Your task to perform on an android device: Show me popular games on the Play Store Image 0: 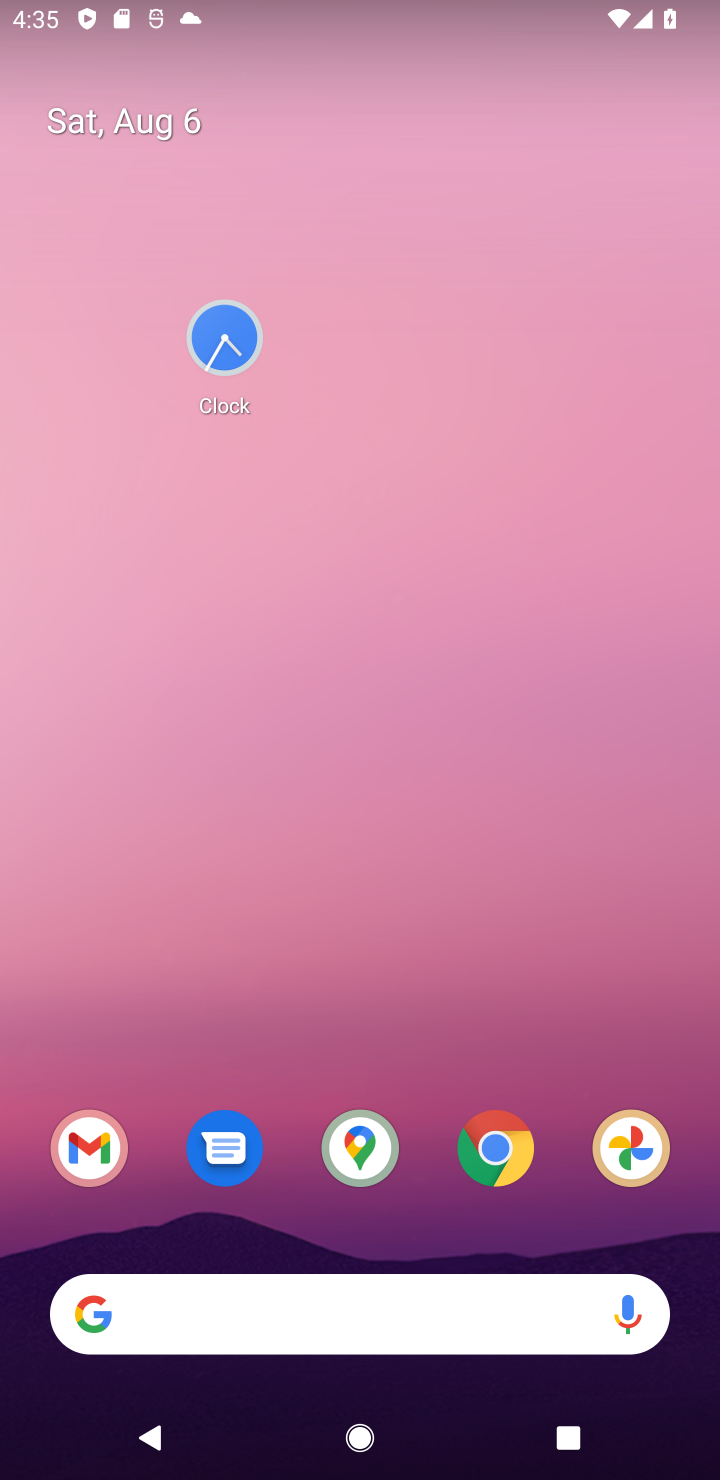
Step 0: click (599, 374)
Your task to perform on an android device: Show me popular games on the Play Store Image 1: 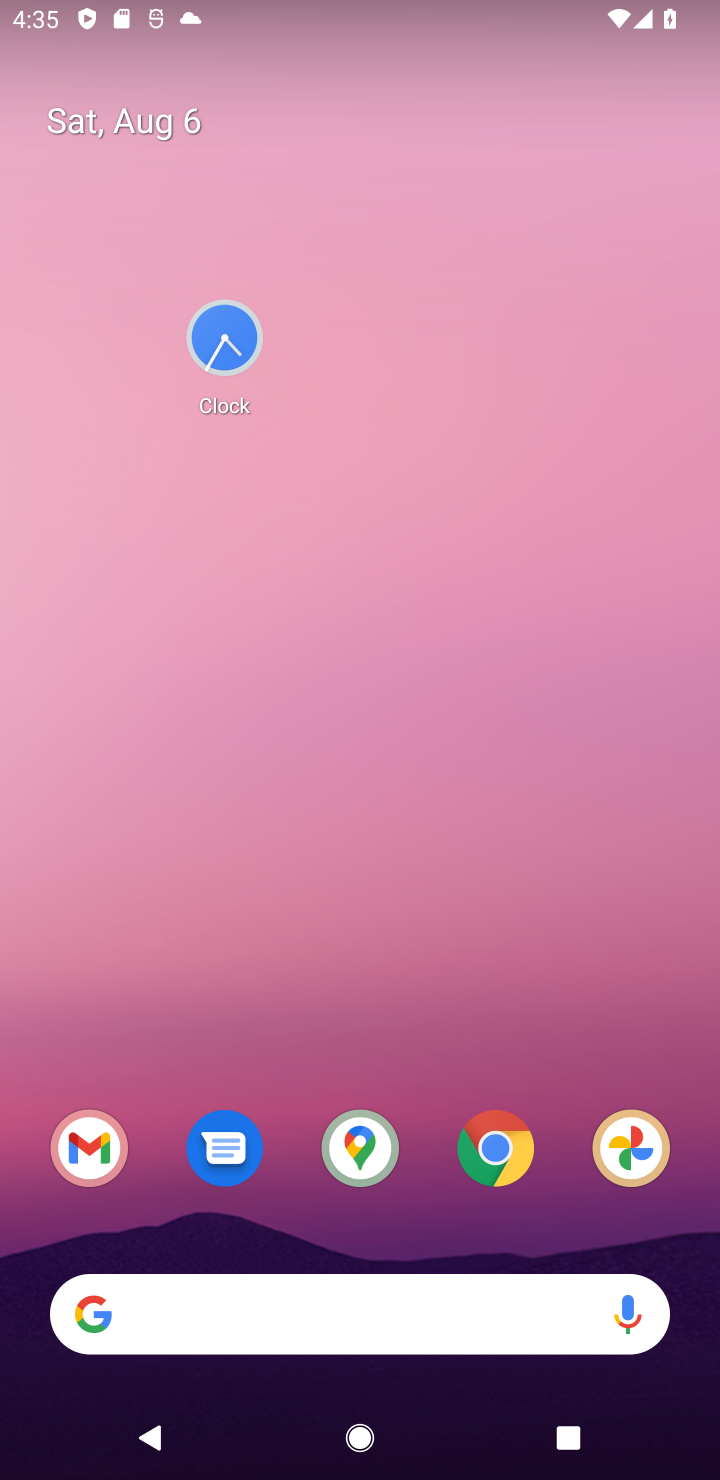
Step 1: drag from (414, 1145) to (472, 478)
Your task to perform on an android device: Show me popular games on the Play Store Image 2: 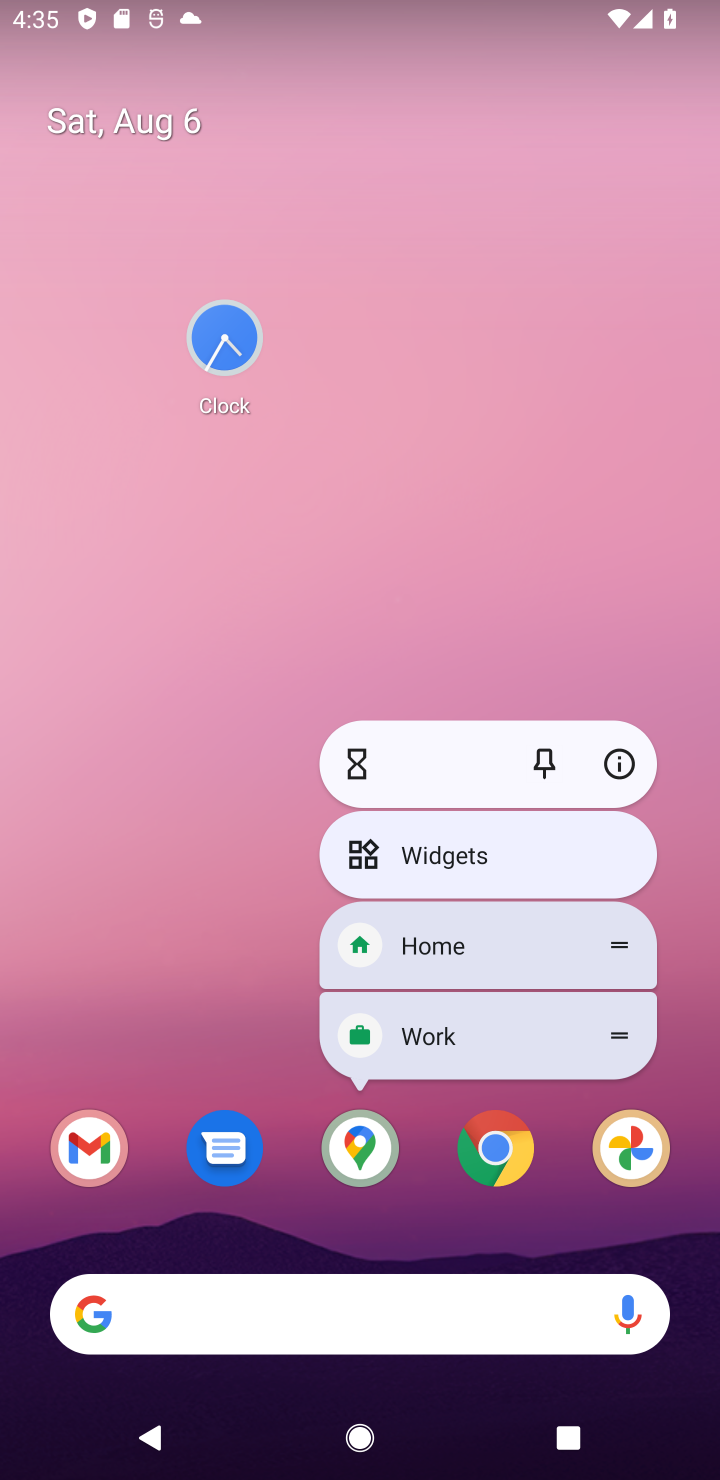
Step 2: click (618, 748)
Your task to perform on an android device: Show me popular games on the Play Store Image 3: 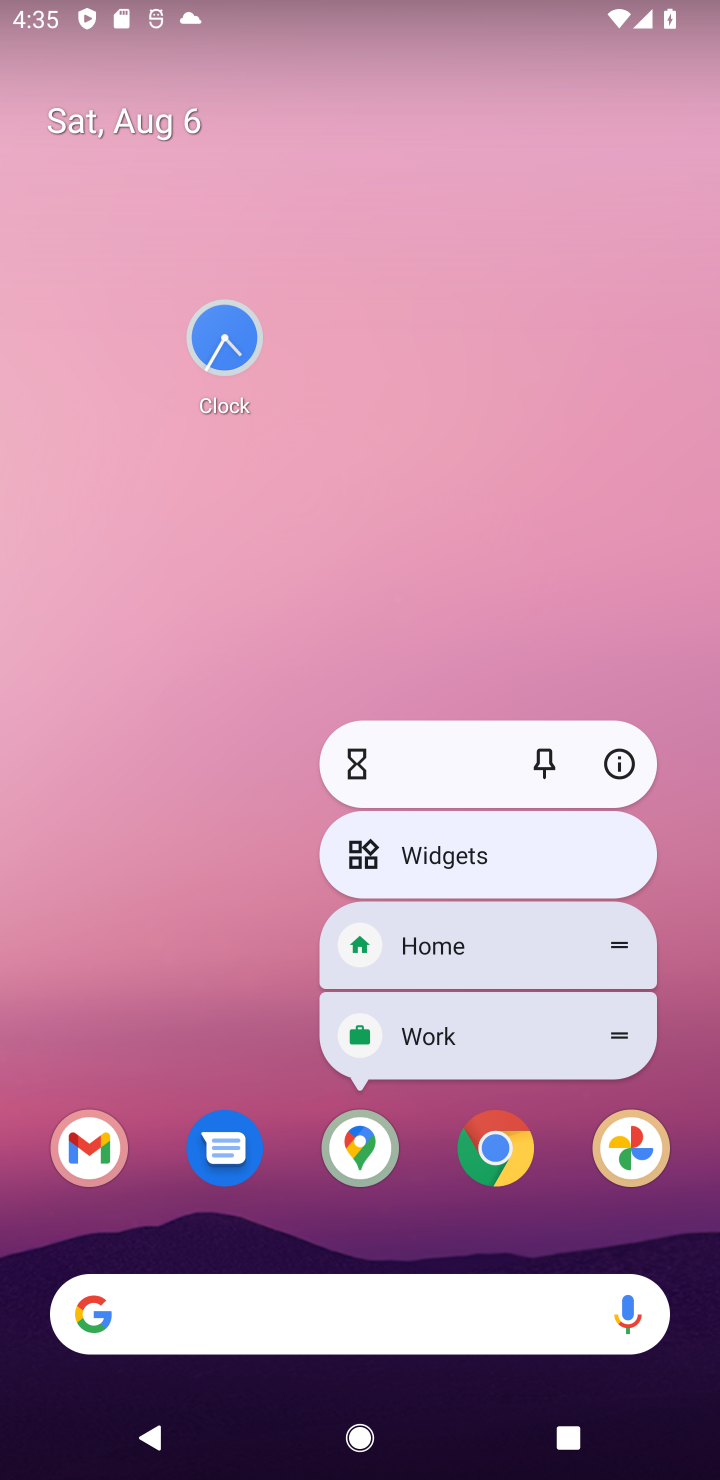
Step 3: click (358, 1160)
Your task to perform on an android device: Show me popular games on the Play Store Image 4: 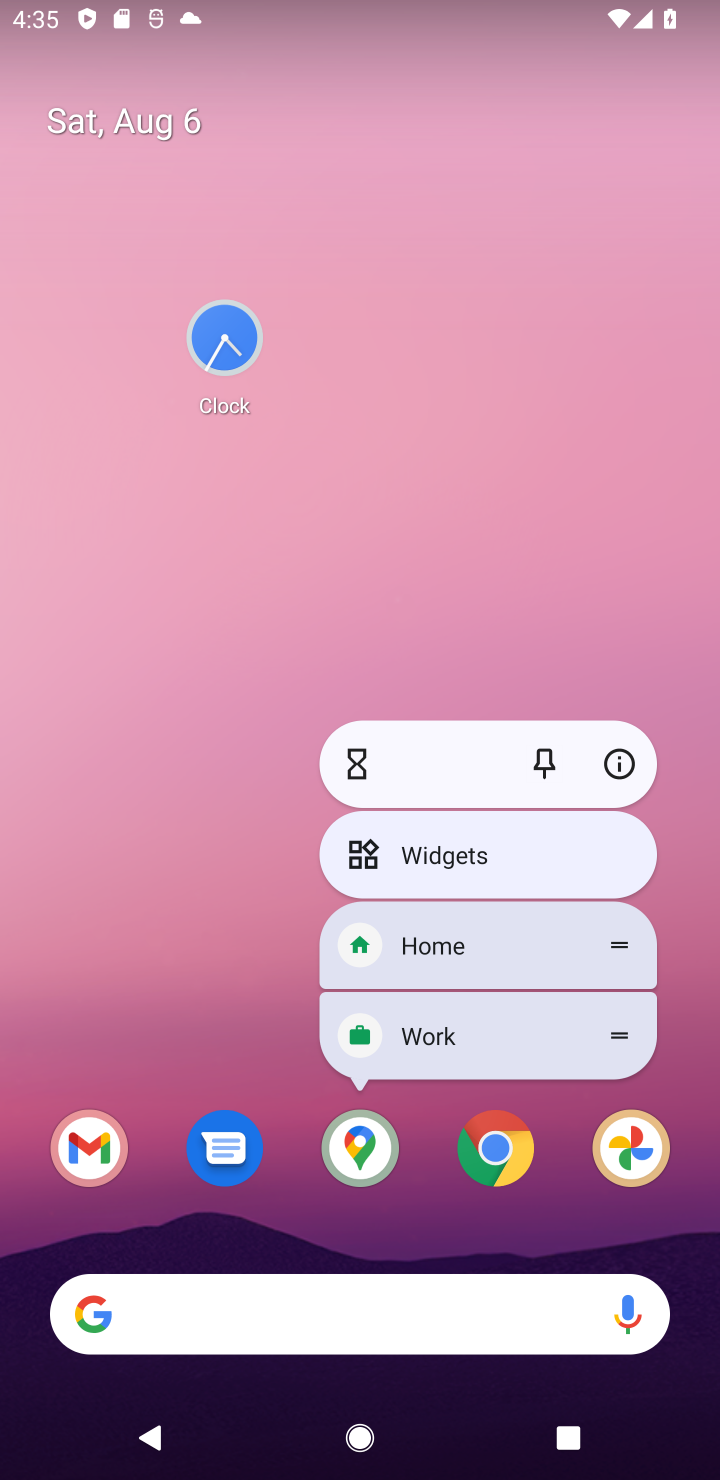
Step 4: click (86, 1003)
Your task to perform on an android device: Show me popular games on the Play Store Image 5: 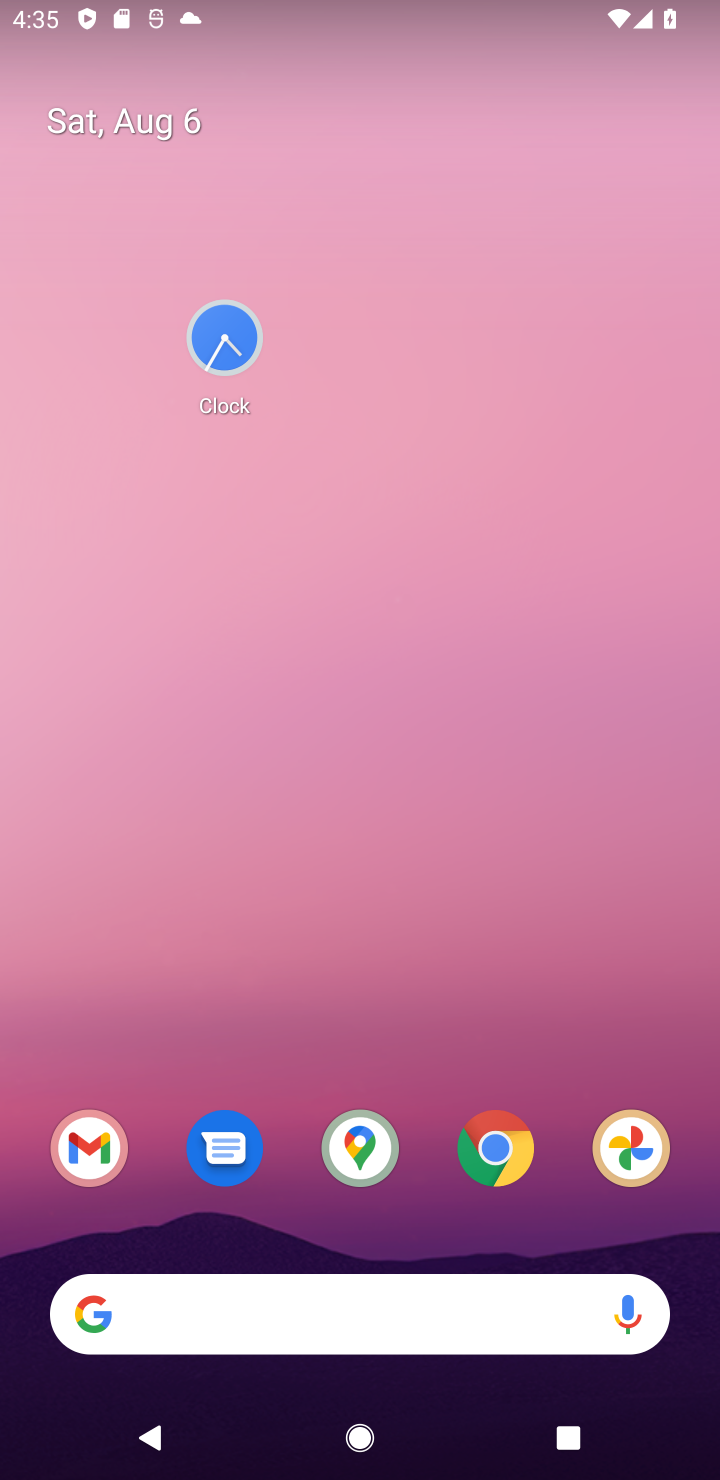
Step 5: drag from (433, 1239) to (597, 394)
Your task to perform on an android device: Show me popular games on the Play Store Image 6: 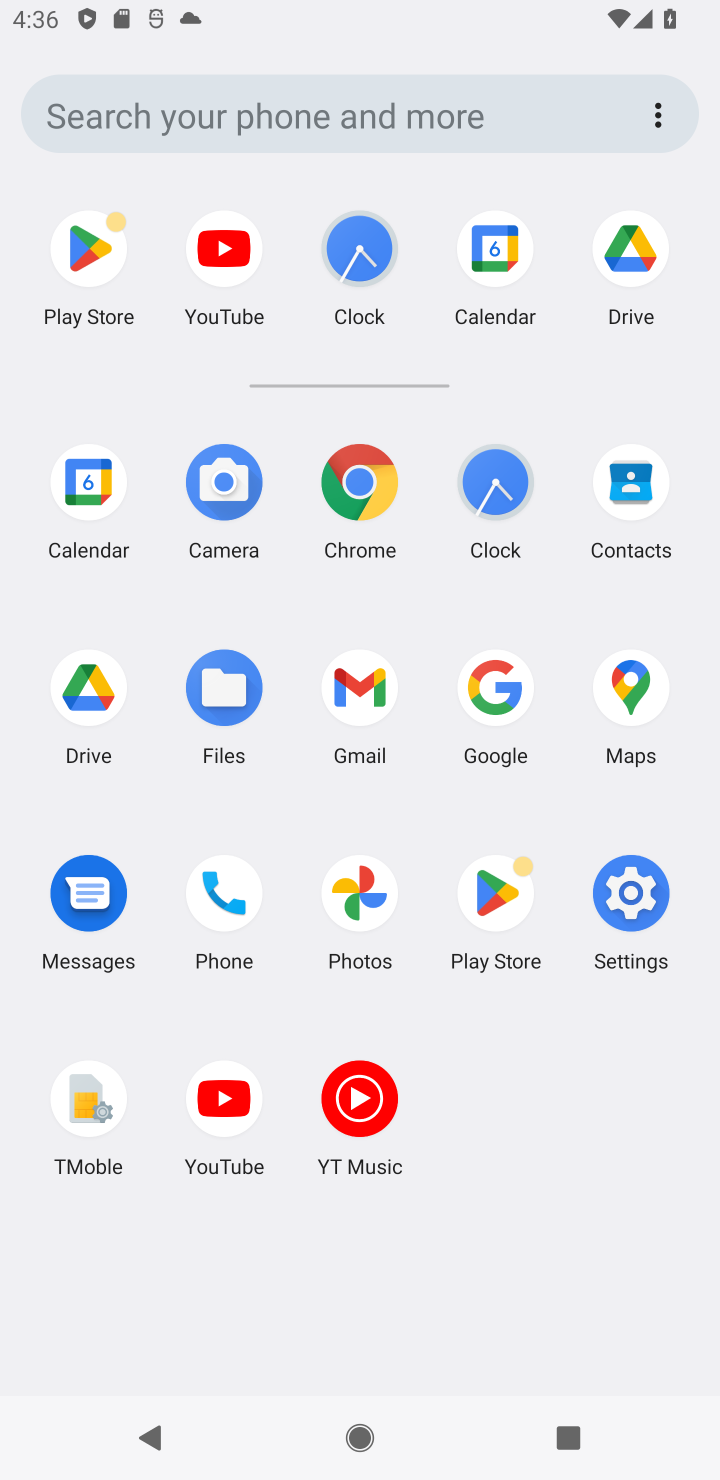
Step 6: click (511, 880)
Your task to perform on an android device: Show me popular games on the Play Store Image 7: 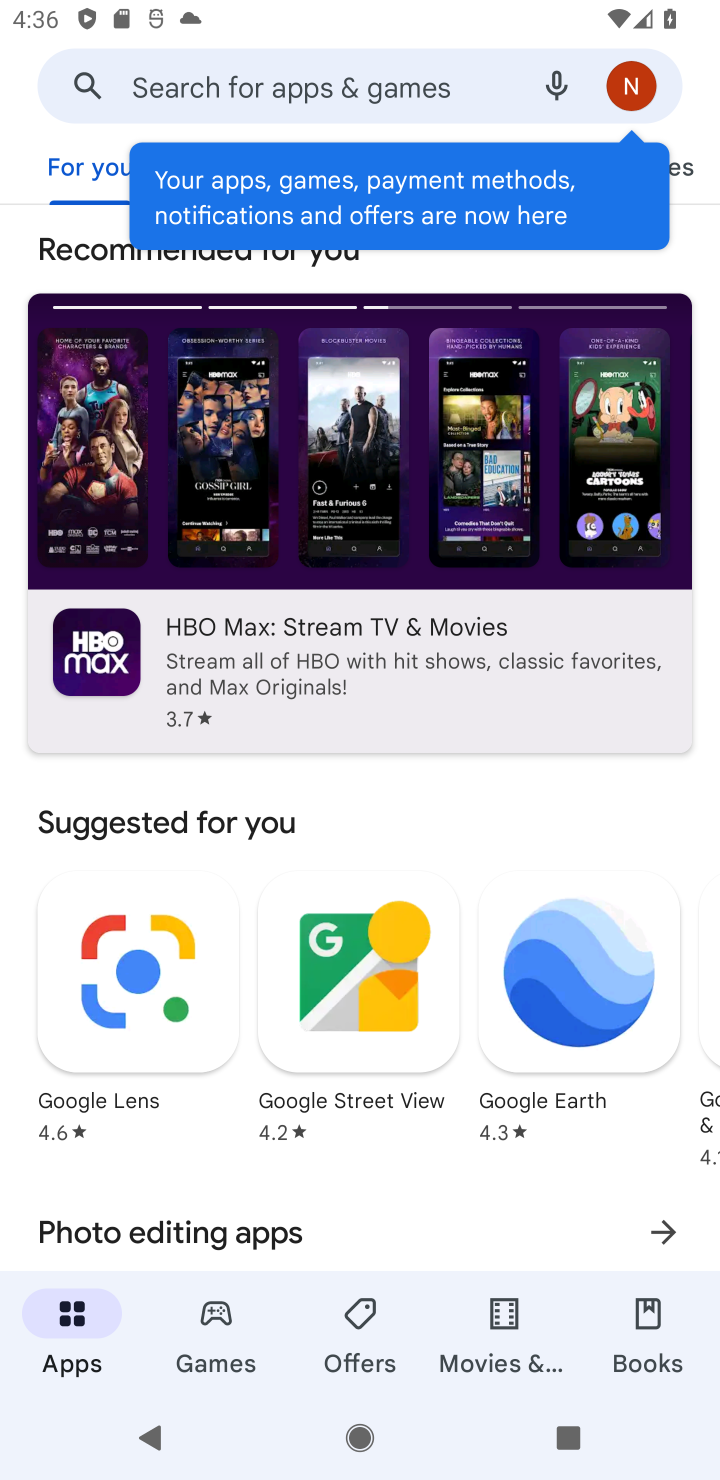
Step 7: drag from (343, 1047) to (473, 371)
Your task to perform on an android device: Show me popular games on the Play Store Image 8: 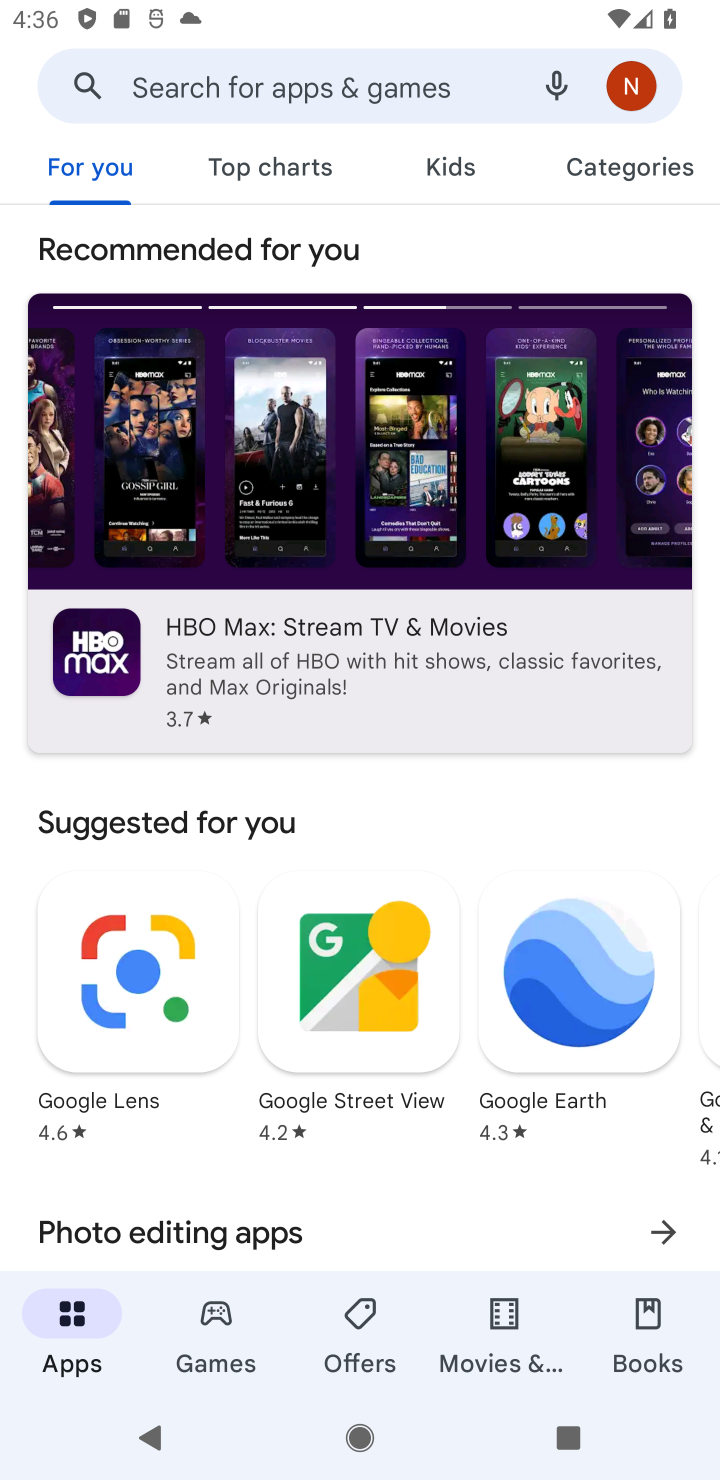
Step 8: click (200, 1339)
Your task to perform on an android device: Show me popular games on the Play Store Image 9: 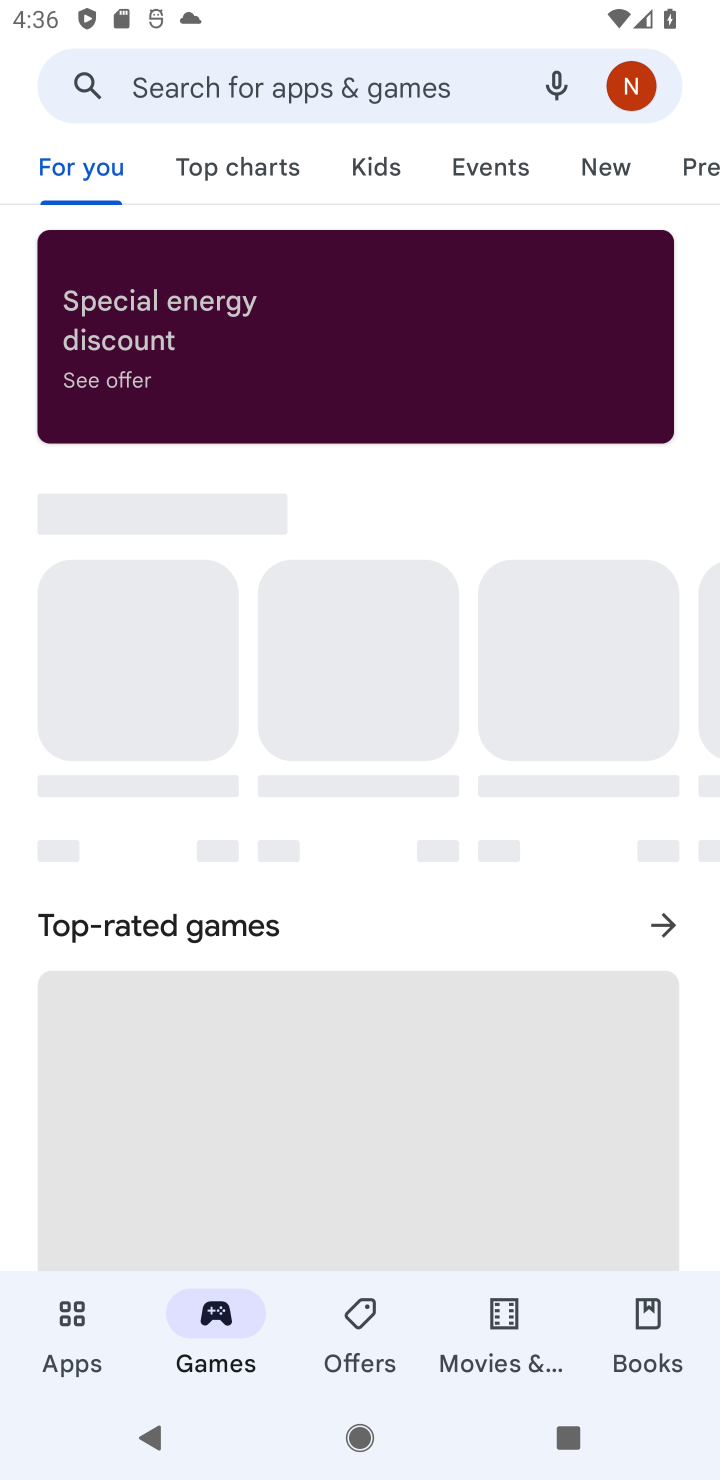
Step 9: drag from (372, 1142) to (488, 256)
Your task to perform on an android device: Show me popular games on the Play Store Image 10: 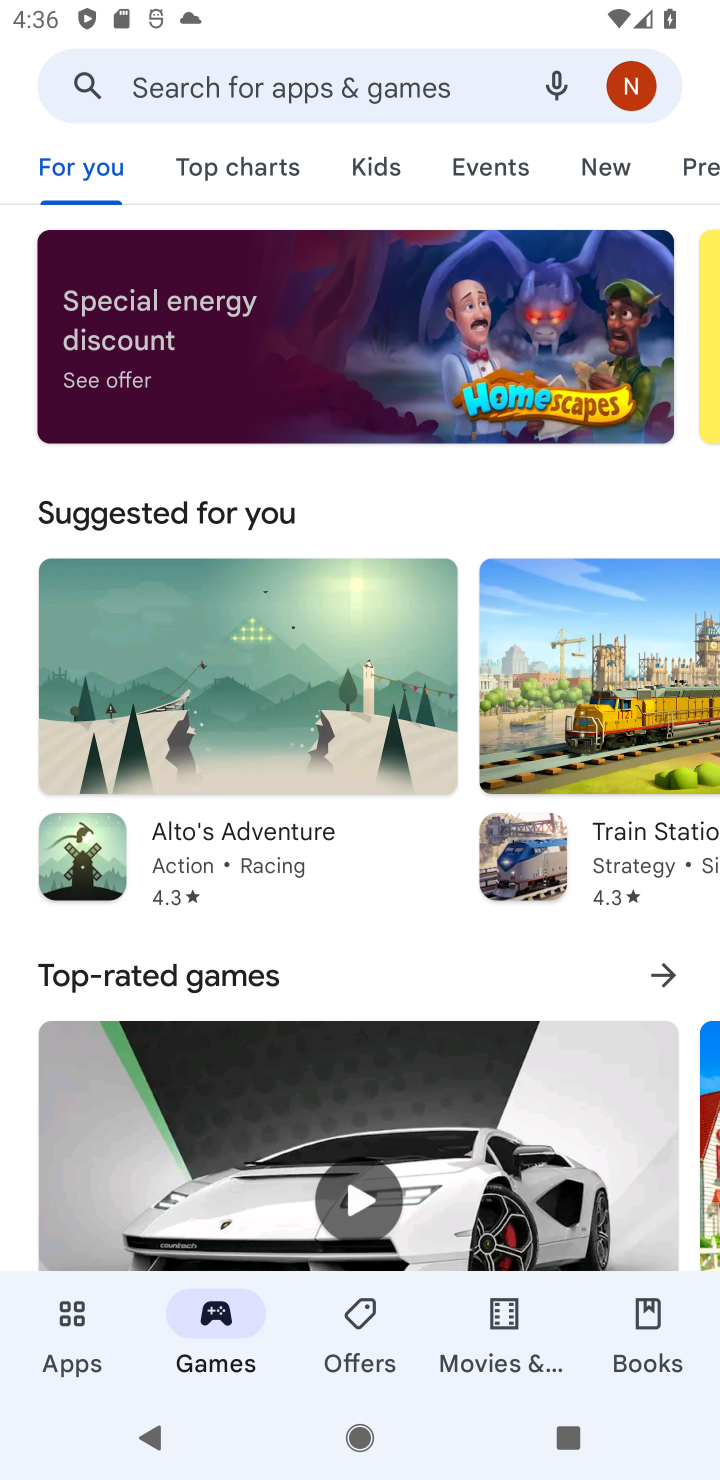
Step 10: drag from (463, 793) to (511, 279)
Your task to perform on an android device: Show me popular games on the Play Store Image 11: 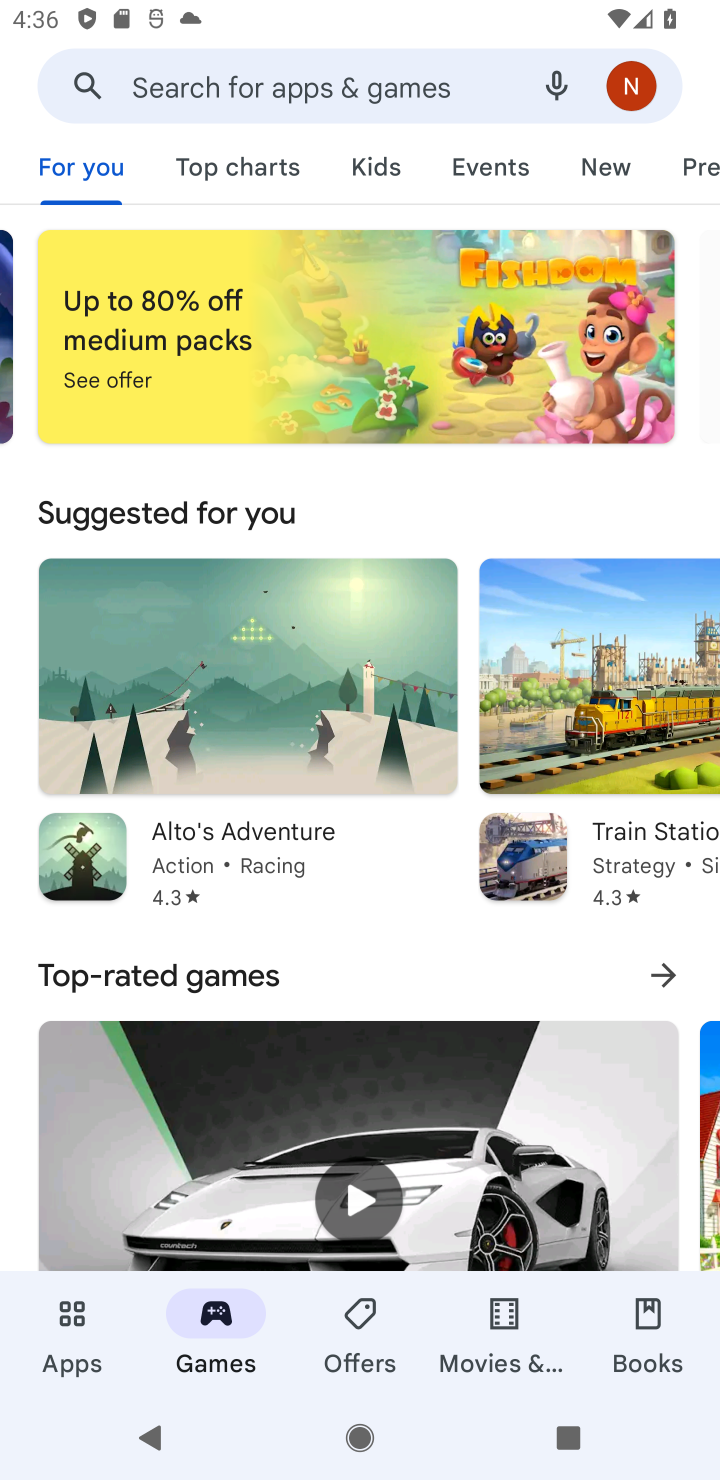
Step 11: drag from (511, 831) to (572, 299)
Your task to perform on an android device: Show me popular games on the Play Store Image 12: 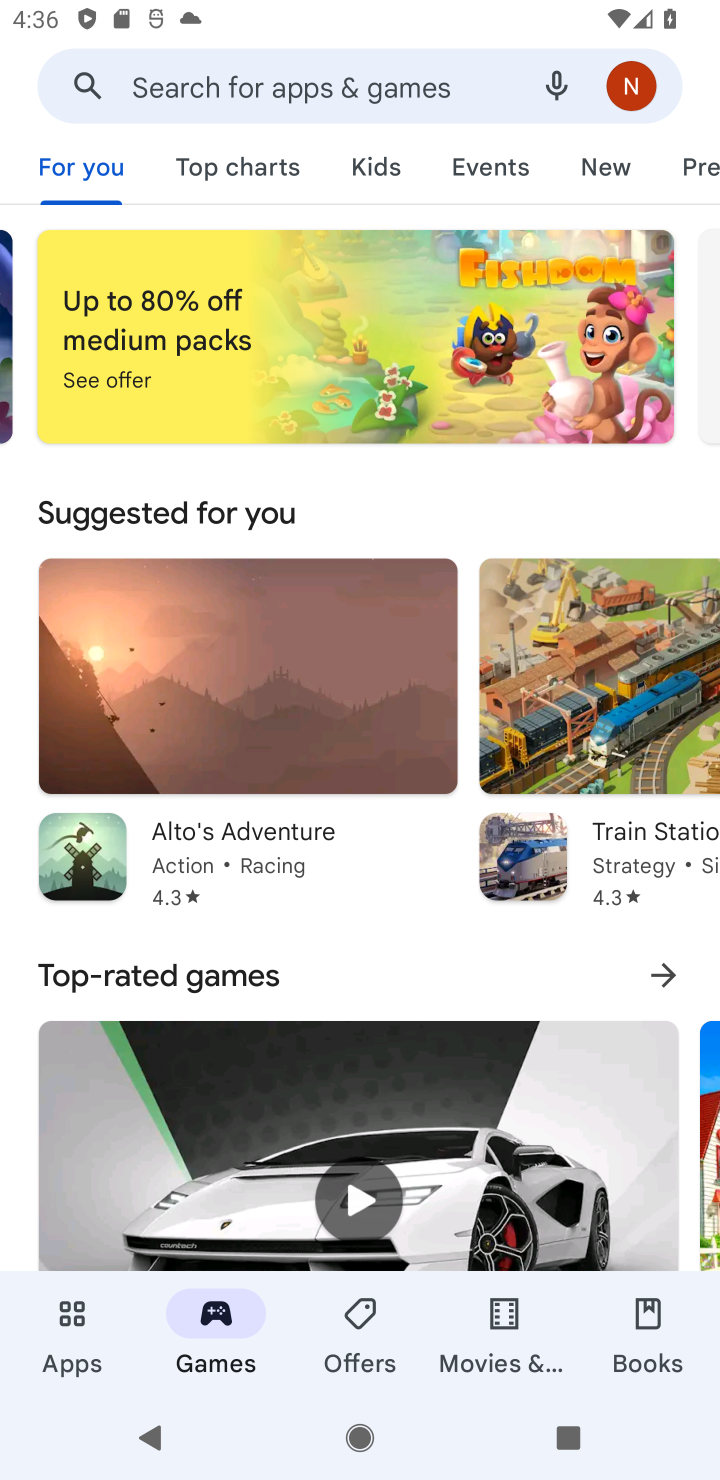
Step 12: drag from (458, 742) to (470, 131)
Your task to perform on an android device: Show me popular games on the Play Store Image 13: 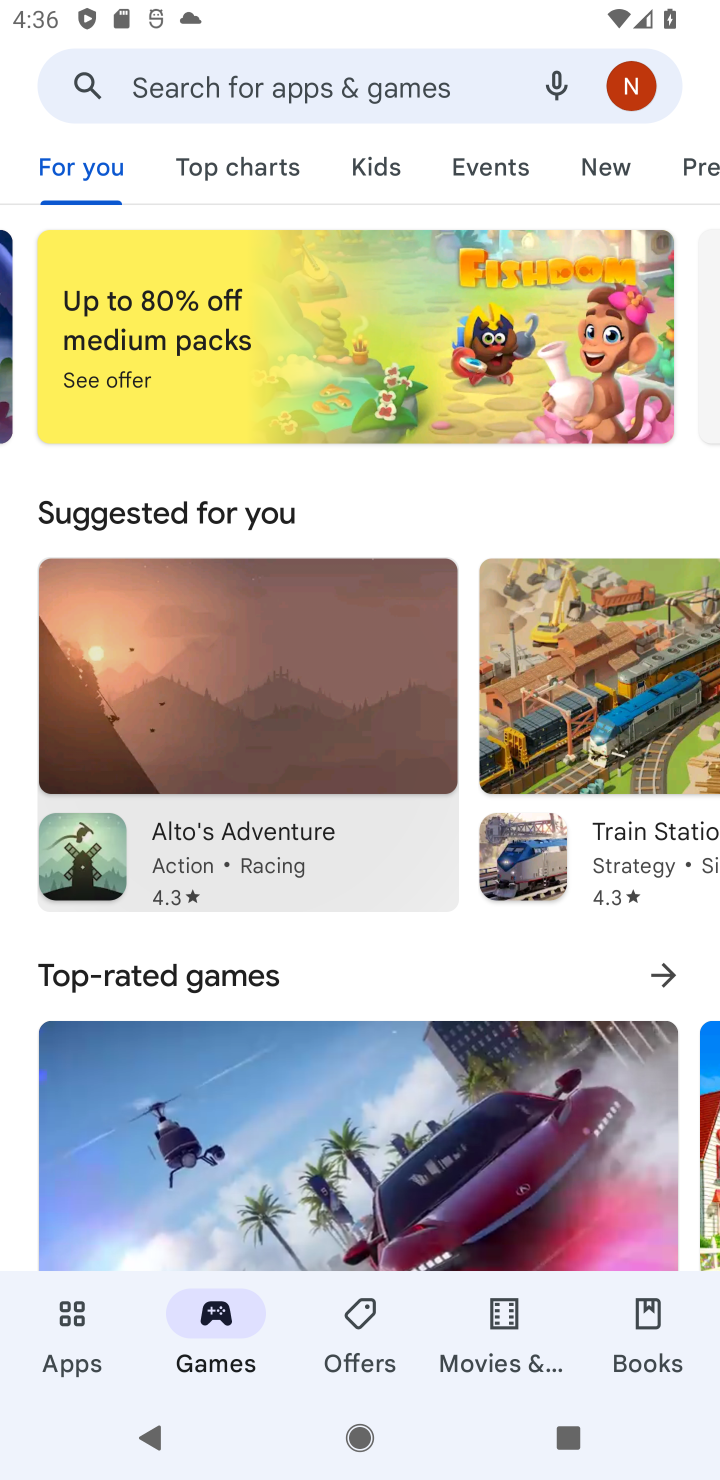
Step 13: drag from (354, 904) to (434, 156)
Your task to perform on an android device: Show me popular games on the Play Store Image 14: 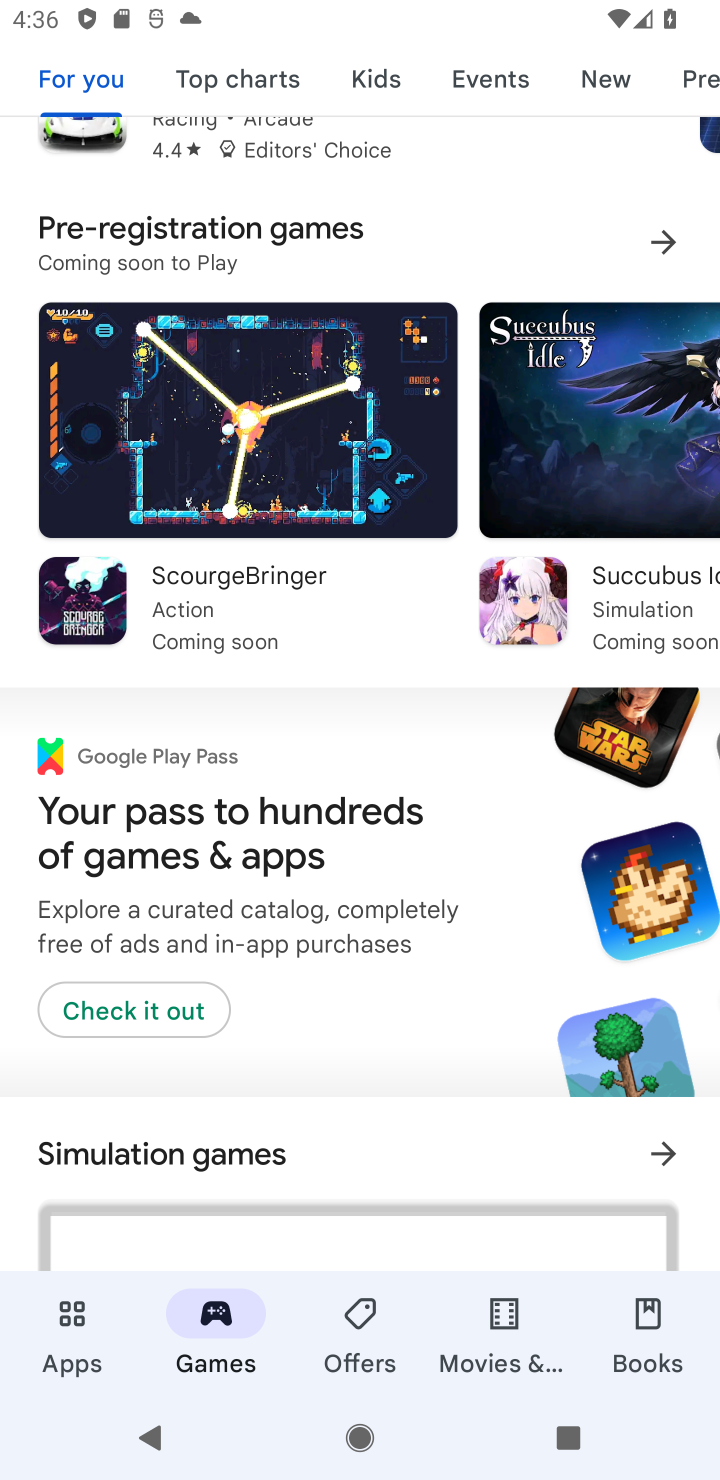
Step 14: drag from (374, 913) to (437, 218)
Your task to perform on an android device: Show me popular games on the Play Store Image 15: 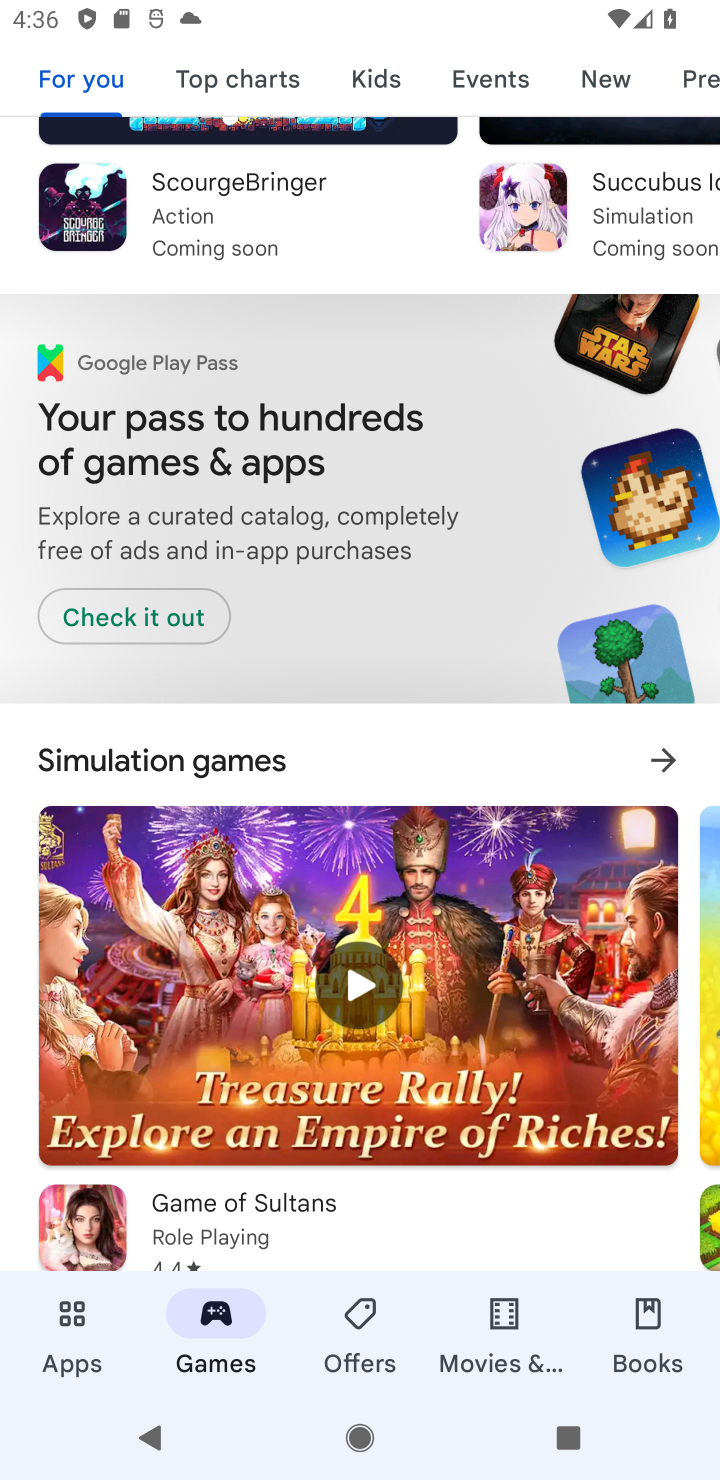
Step 15: drag from (349, 1118) to (434, 413)
Your task to perform on an android device: Show me popular games on the Play Store Image 16: 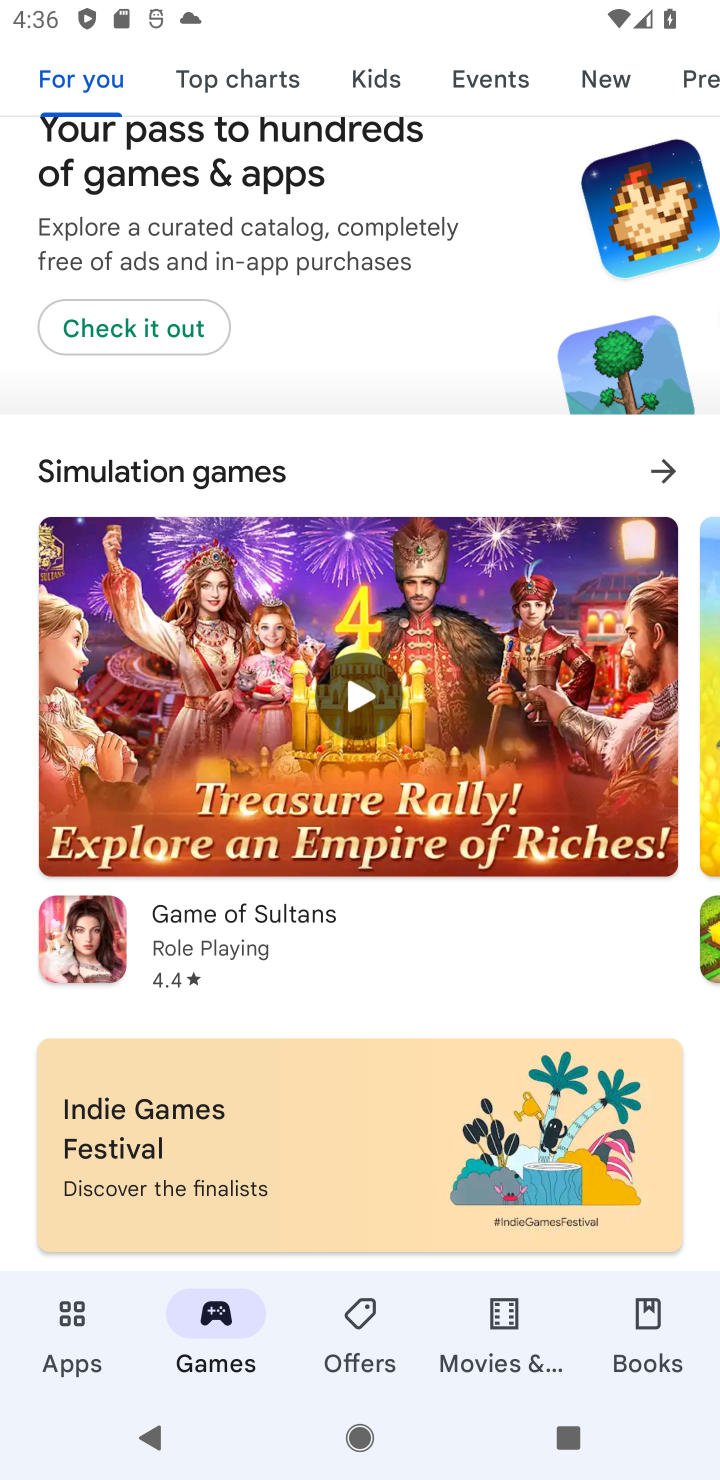
Step 16: drag from (373, 992) to (424, 520)
Your task to perform on an android device: Show me popular games on the Play Store Image 17: 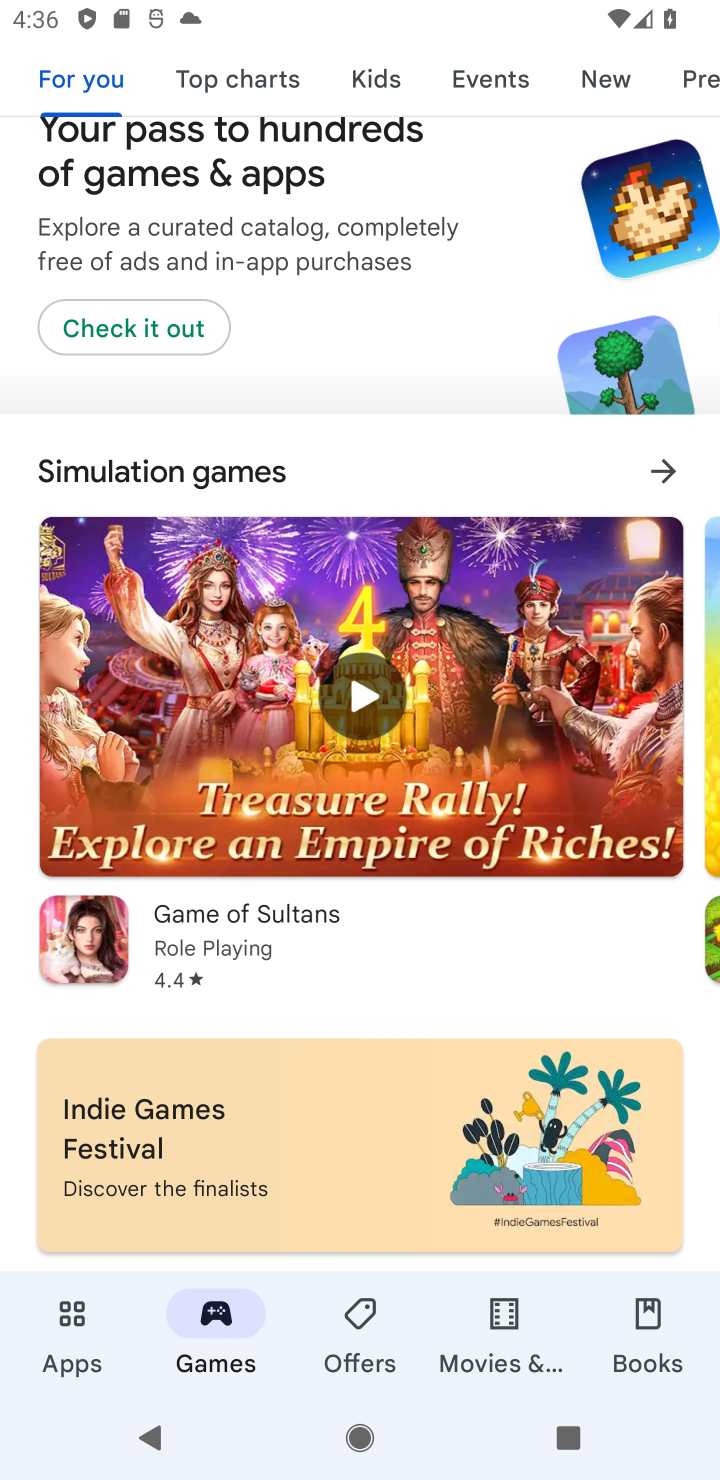
Step 17: click (477, 149)
Your task to perform on an android device: Show me popular games on the Play Store Image 18: 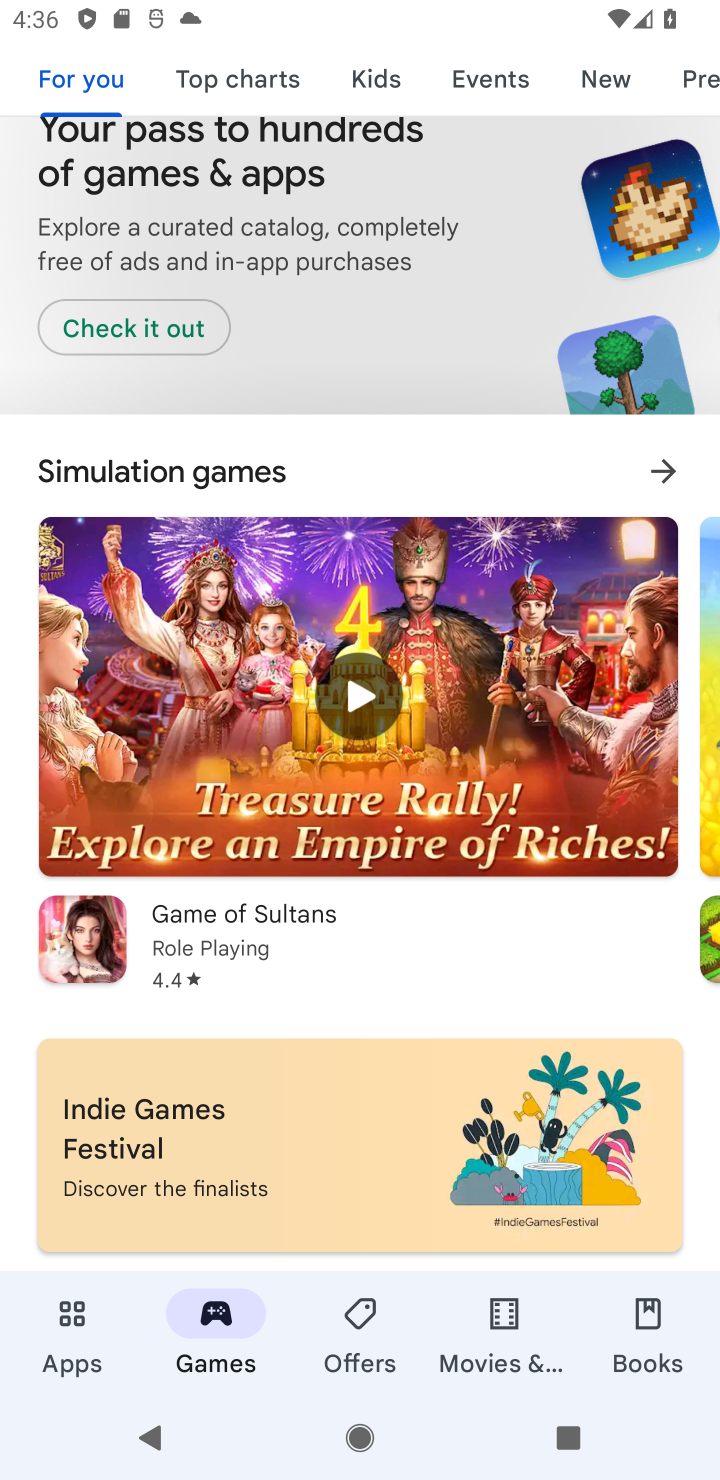
Step 18: task complete